Your task to perform on an android device: toggle airplane mode Image 0: 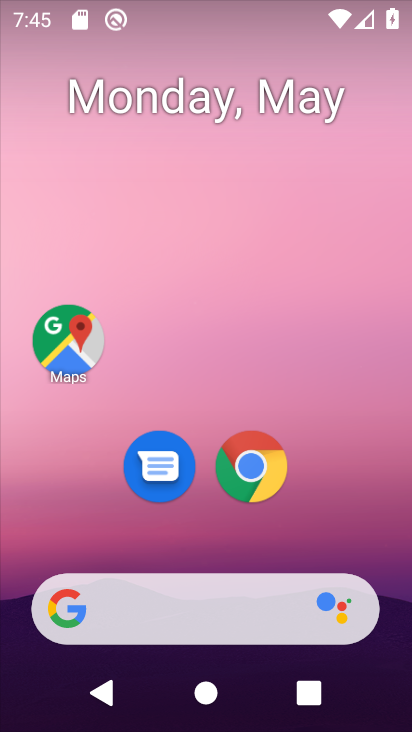
Step 0: drag from (250, 722) to (135, 116)
Your task to perform on an android device: toggle airplane mode Image 1: 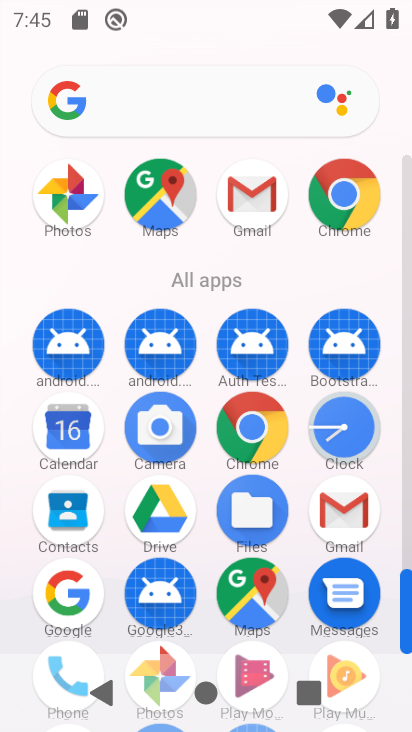
Step 1: drag from (224, 484) to (229, 6)
Your task to perform on an android device: toggle airplane mode Image 2: 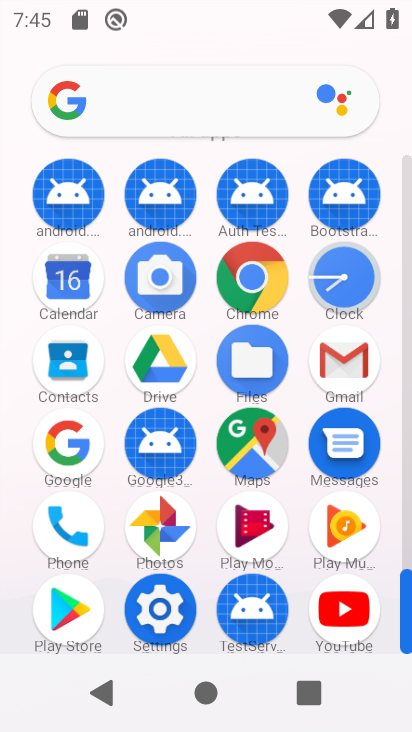
Step 2: drag from (204, 431) to (203, 125)
Your task to perform on an android device: toggle airplane mode Image 3: 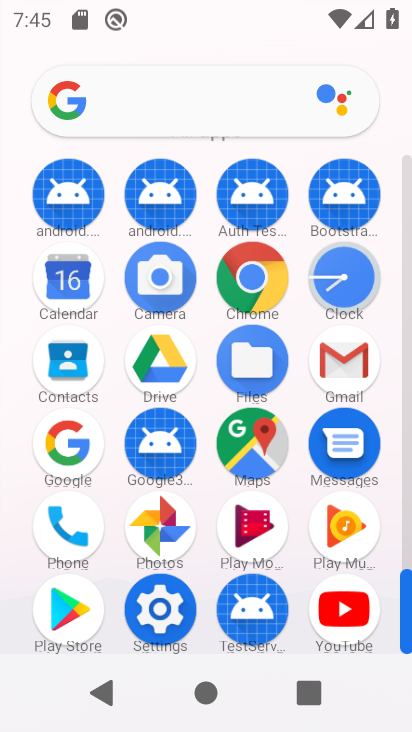
Step 3: click (147, 624)
Your task to perform on an android device: toggle airplane mode Image 4: 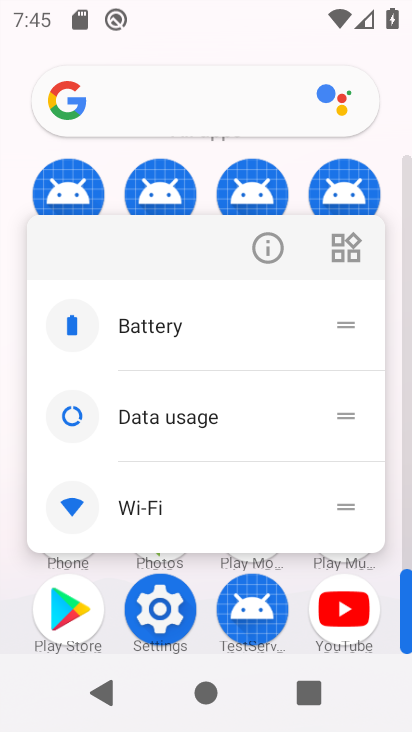
Step 4: click (154, 593)
Your task to perform on an android device: toggle airplane mode Image 5: 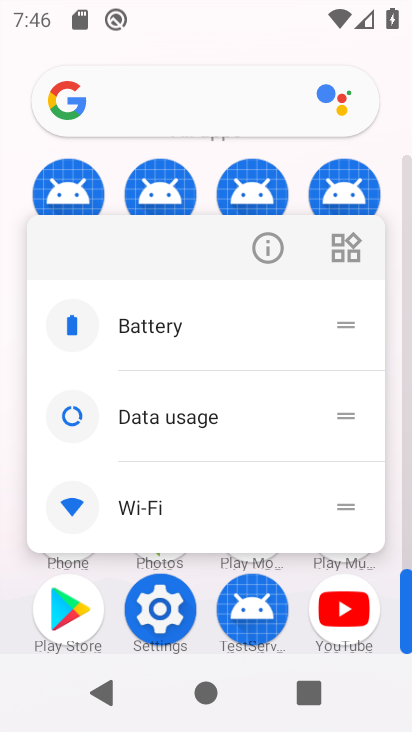
Step 5: click (173, 595)
Your task to perform on an android device: toggle airplane mode Image 6: 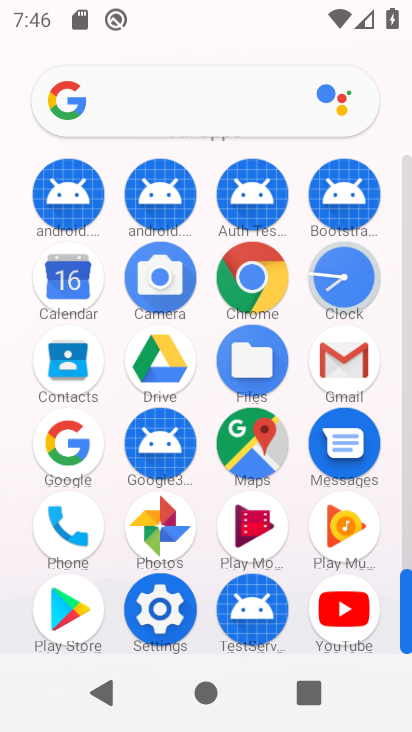
Step 6: click (161, 596)
Your task to perform on an android device: toggle airplane mode Image 7: 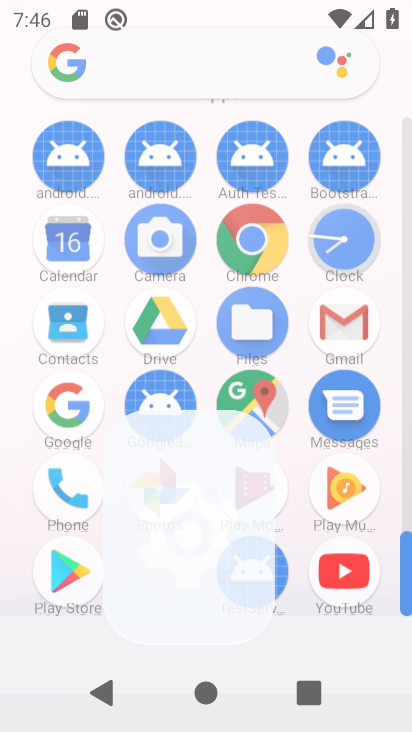
Step 7: click (175, 611)
Your task to perform on an android device: toggle airplane mode Image 8: 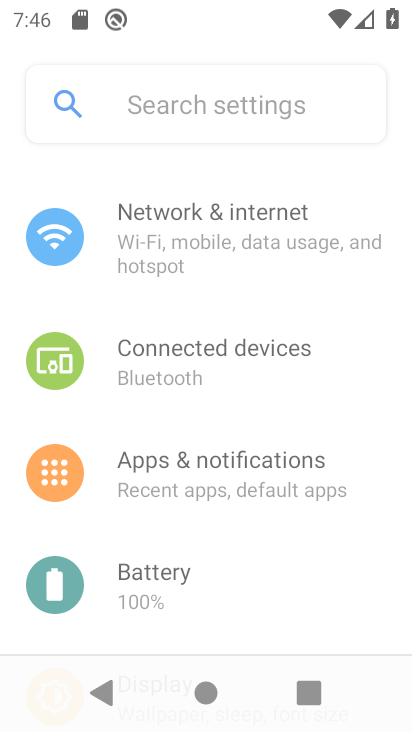
Step 8: drag from (240, 491) to (204, 111)
Your task to perform on an android device: toggle airplane mode Image 9: 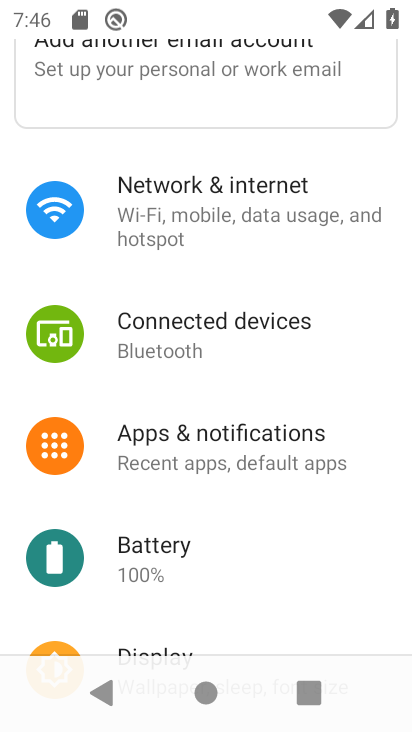
Step 9: click (177, 211)
Your task to perform on an android device: toggle airplane mode Image 10: 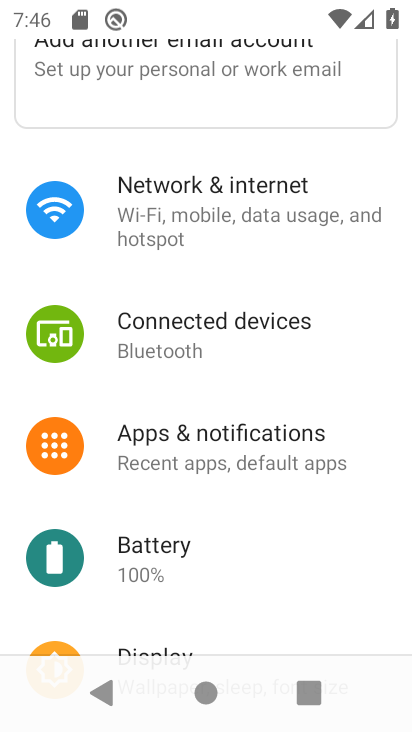
Step 10: click (177, 211)
Your task to perform on an android device: toggle airplane mode Image 11: 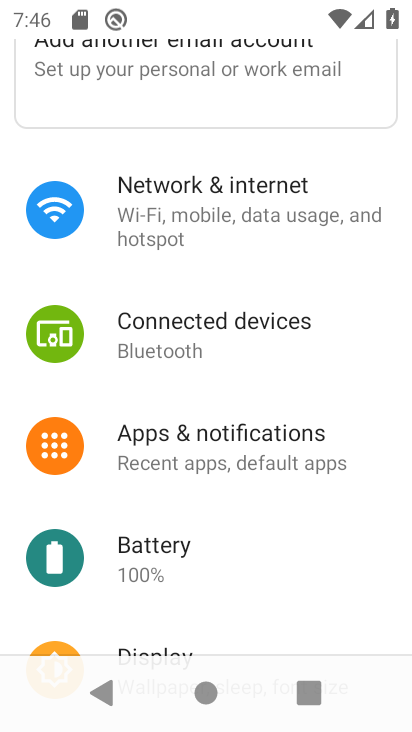
Step 11: click (177, 211)
Your task to perform on an android device: toggle airplane mode Image 12: 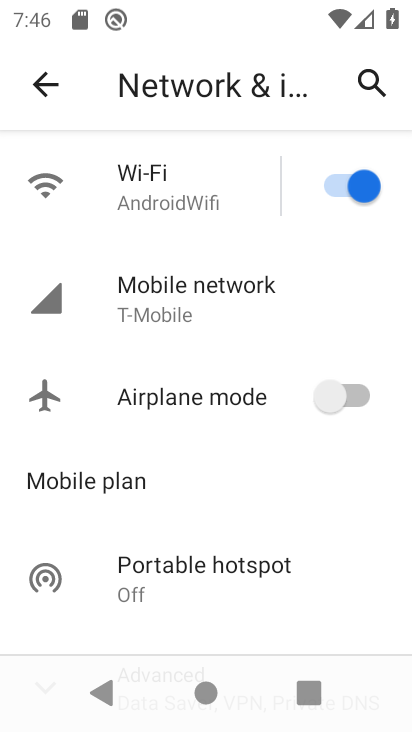
Step 12: click (327, 406)
Your task to perform on an android device: toggle airplane mode Image 13: 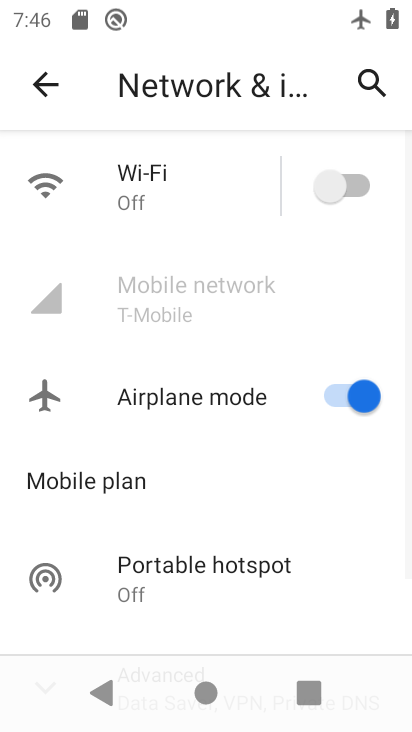
Step 13: task complete